Your task to perform on an android device: Search for logitech g903 on costco.com, select the first entry, add it to the cart, then select checkout. Image 0: 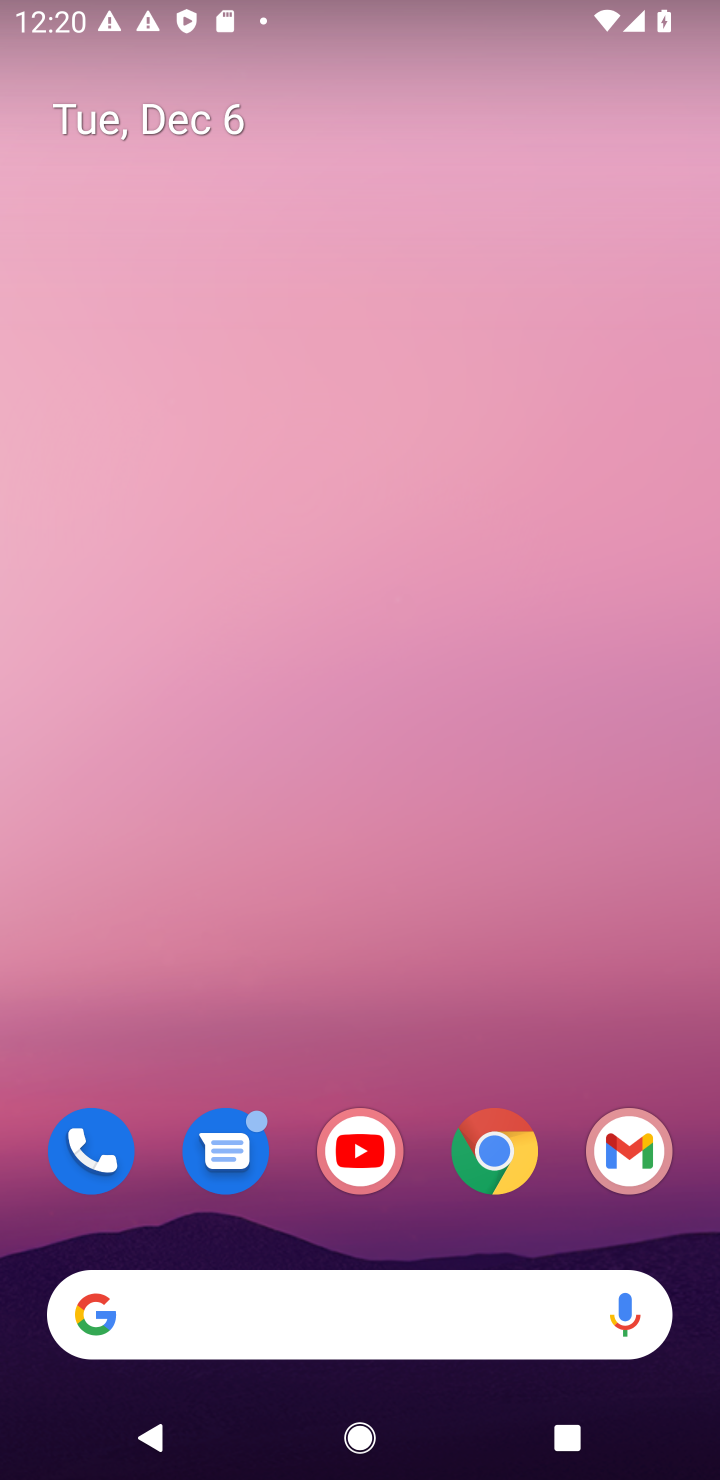
Step 0: click (506, 1168)
Your task to perform on an android device: Search for logitech g903 on costco.com, select the first entry, add it to the cart, then select checkout. Image 1: 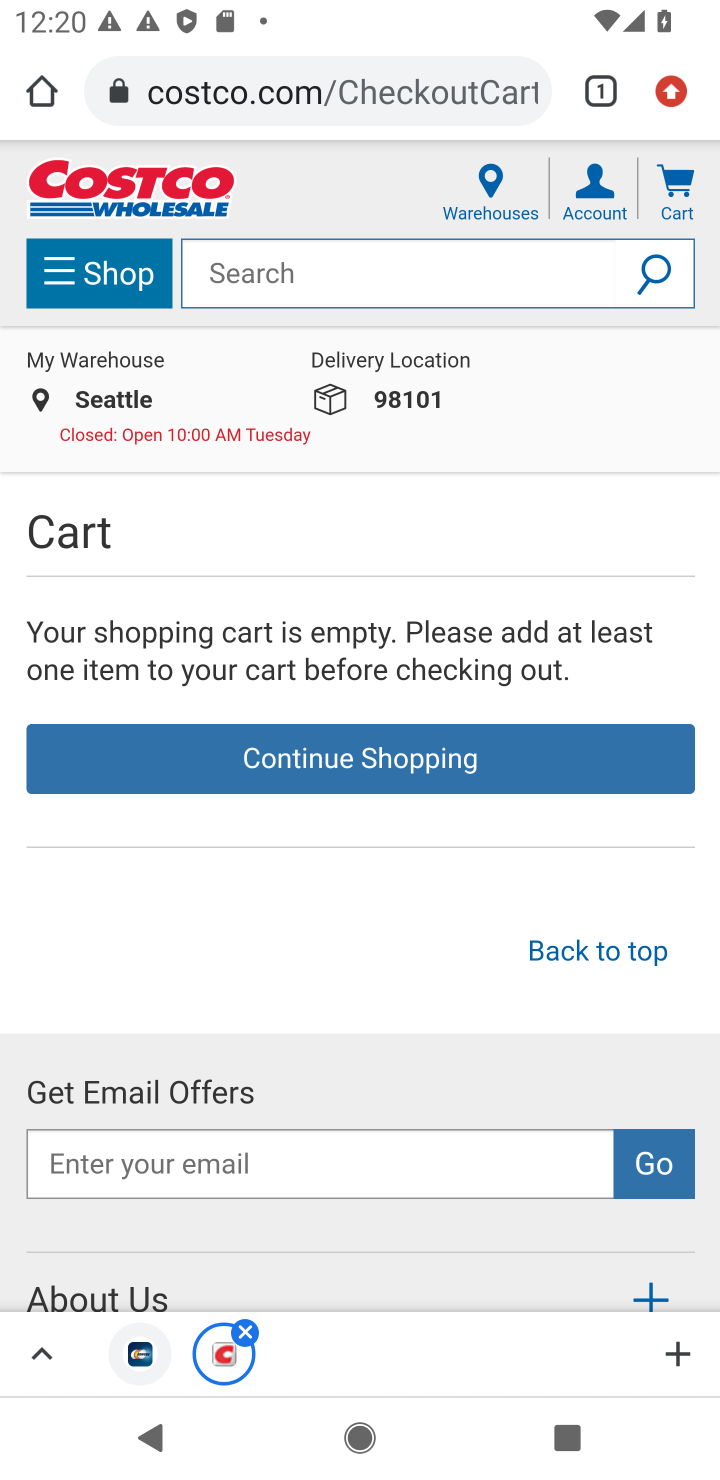
Step 1: click (281, 284)
Your task to perform on an android device: Search for logitech g903 on costco.com, select the first entry, add it to the cart, then select checkout. Image 2: 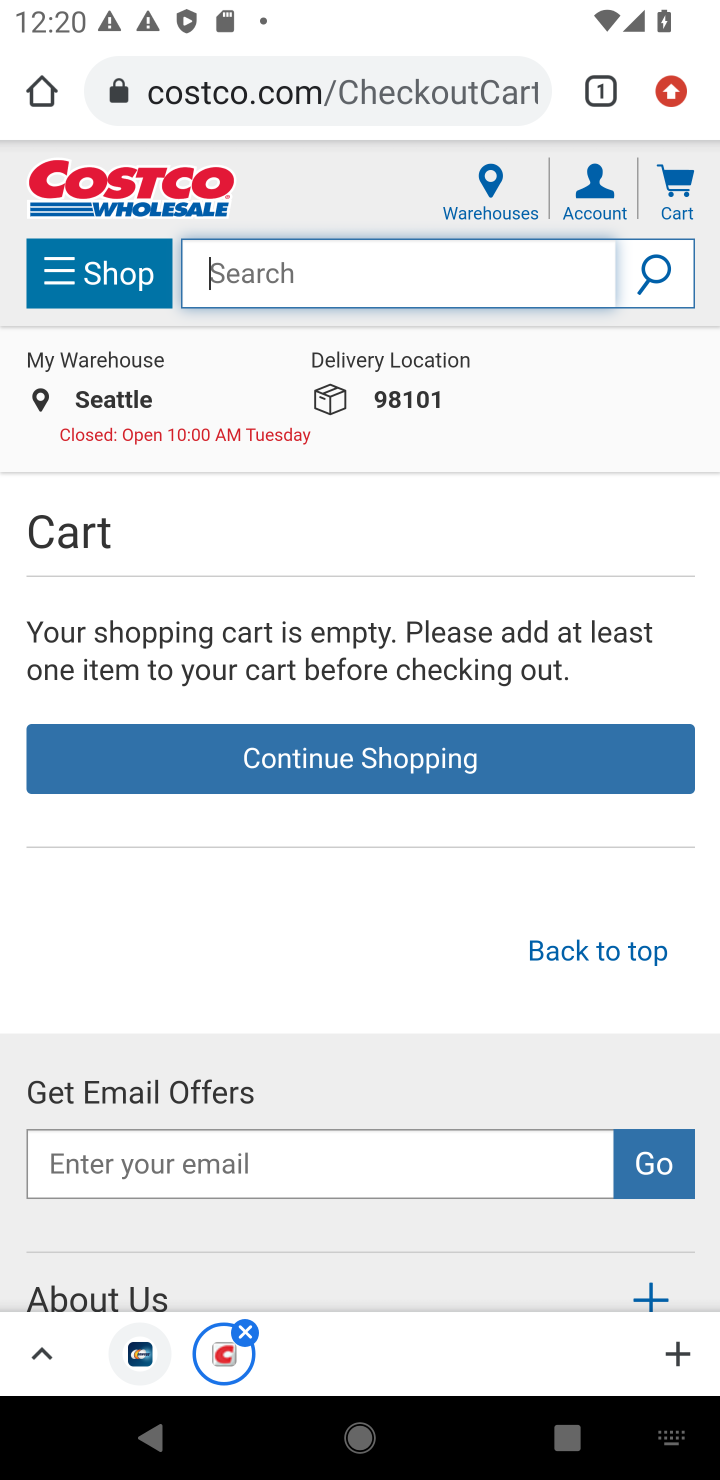
Step 2: type "logitech g903"
Your task to perform on an android device: Search for logitech g903 on costco.com, select the first entry, add it to the cart, then select checkout. Image 3: 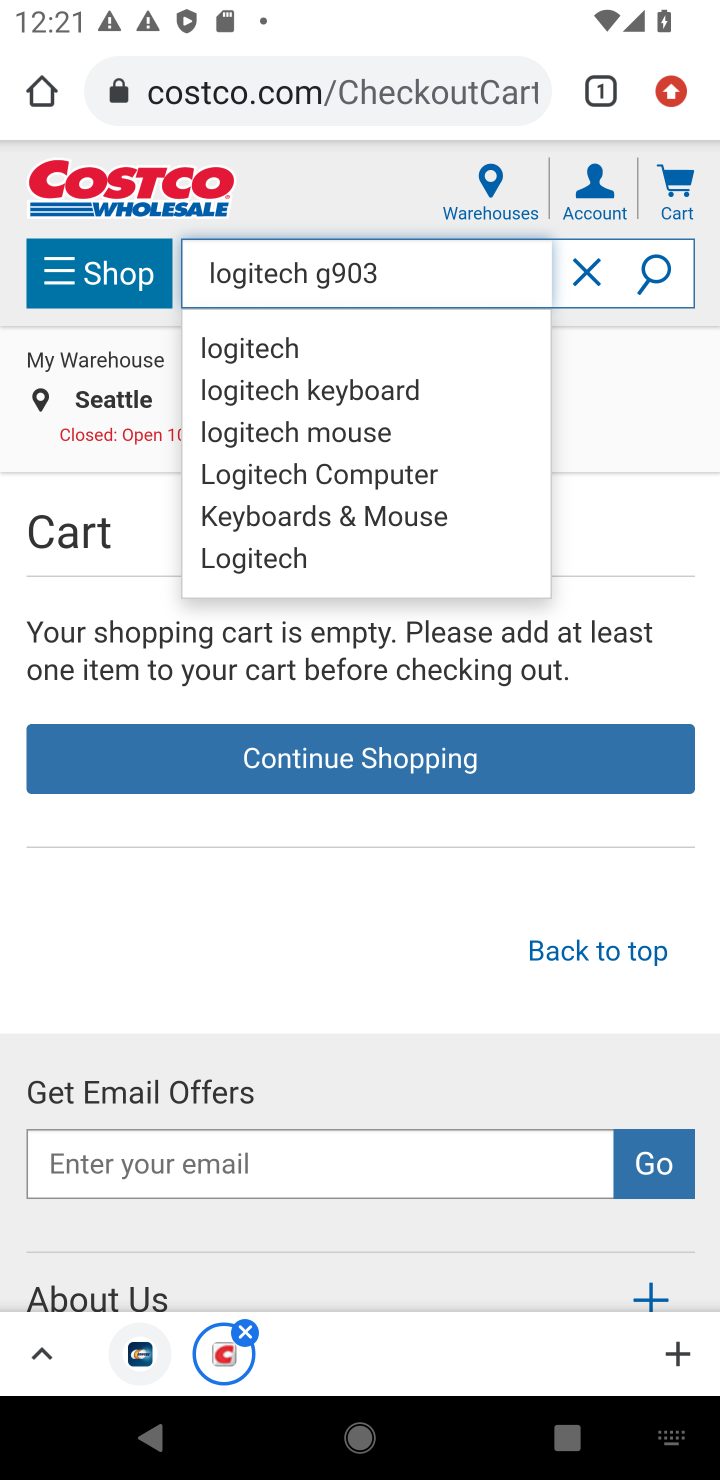
Step 3: click (643, 278)
Your task to perform on an android device: Search for logitech g903 on costco.com, select the first entry, add it to the cart, then select checkout. Image 4: 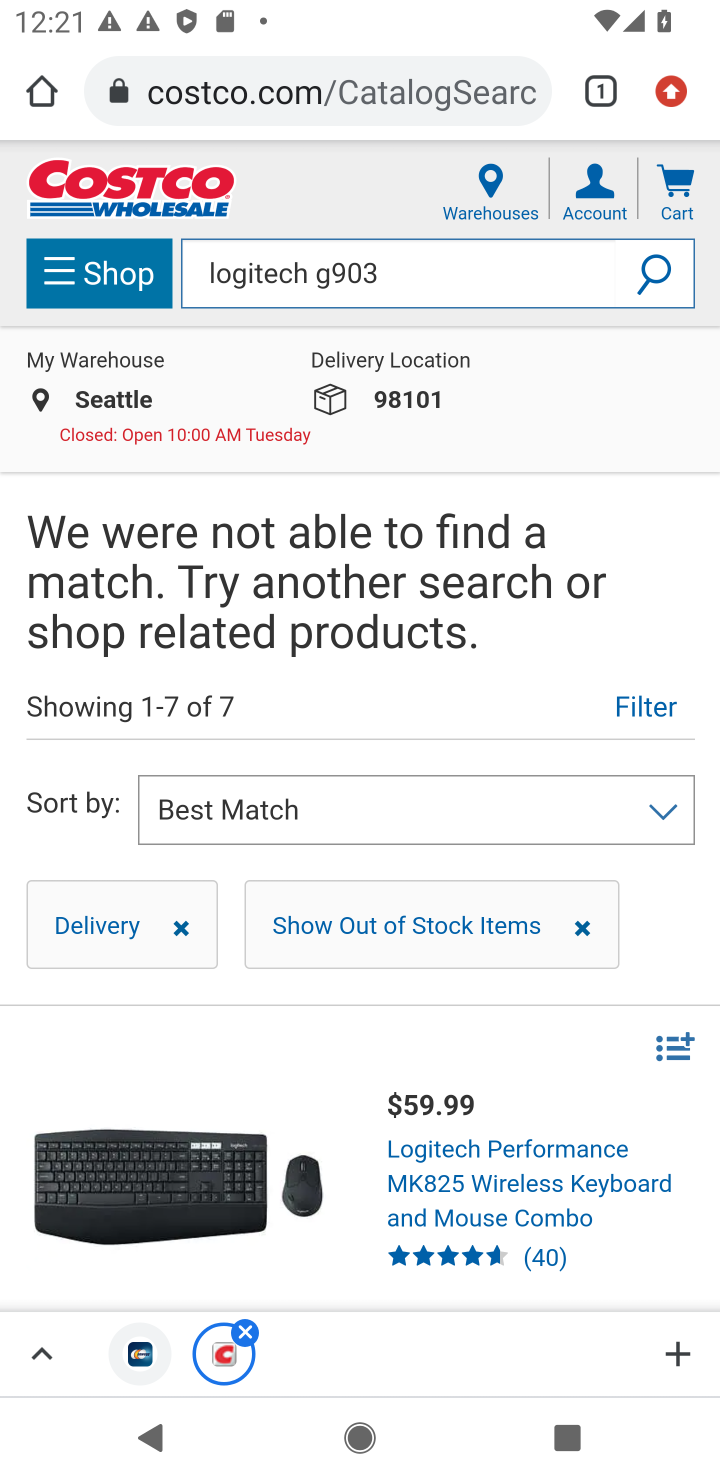
Step 4: task complete